Your task to perform on an android device: Open maps Image 0: 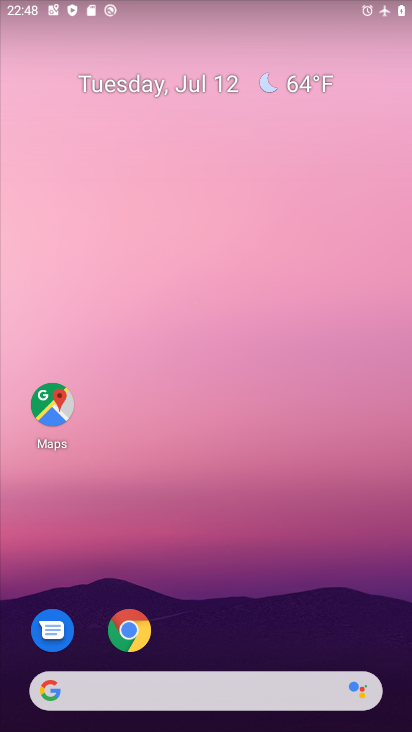
Step 0: click (61, 388)
Your task to perform on an android device: Open maps Image 1: 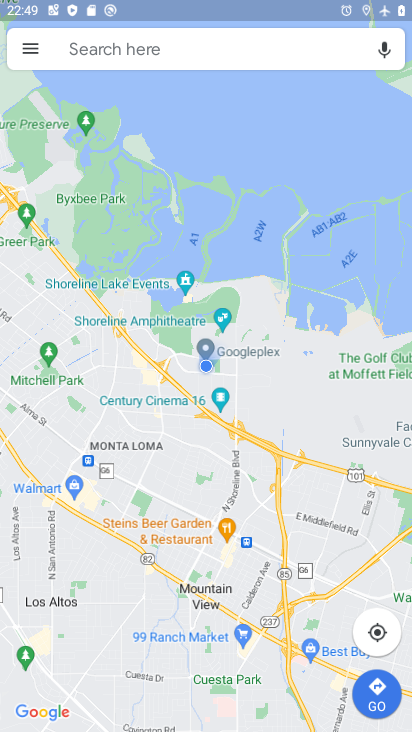
Step 1: task complete